Your task to perform on an android device: turn on sleep mode Image 0: 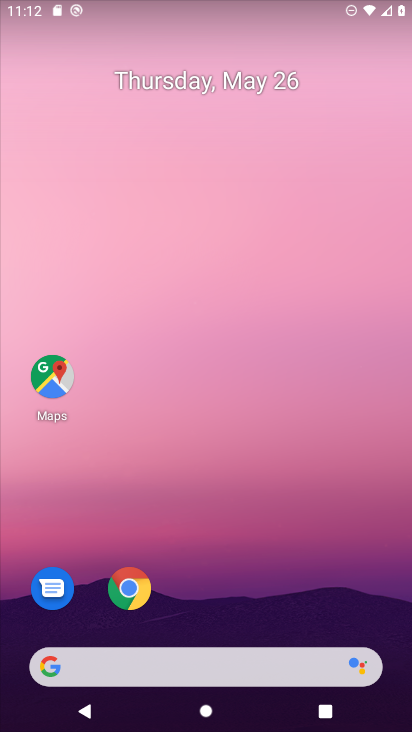
Step 0: drag from (388, 647) to (336, 79)
Your task to perform on an android device: turn on sleep mode Image 1: 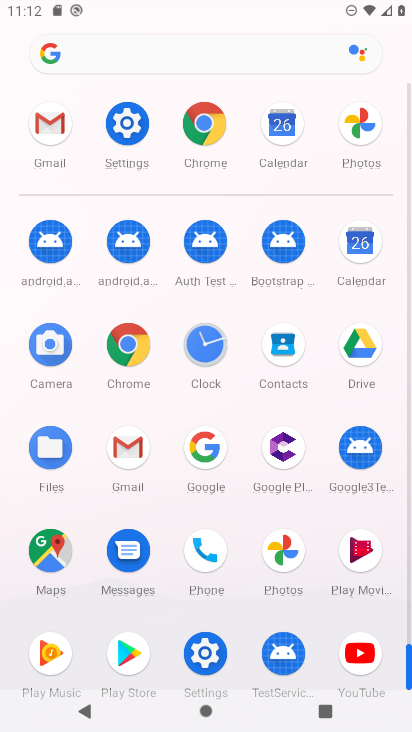
Step 1: click (203, 652)
Your task to perform on an android device: turn on sleep mode Image 2: 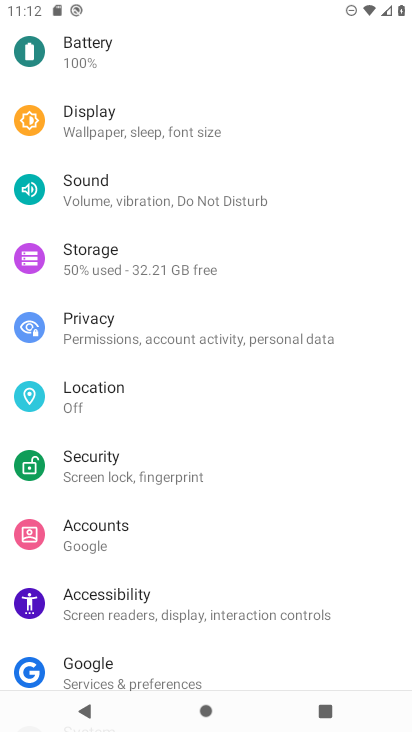
Step 2: click (110, 122)
Your task to perform on an android device: turn on sleep mode Image 3: 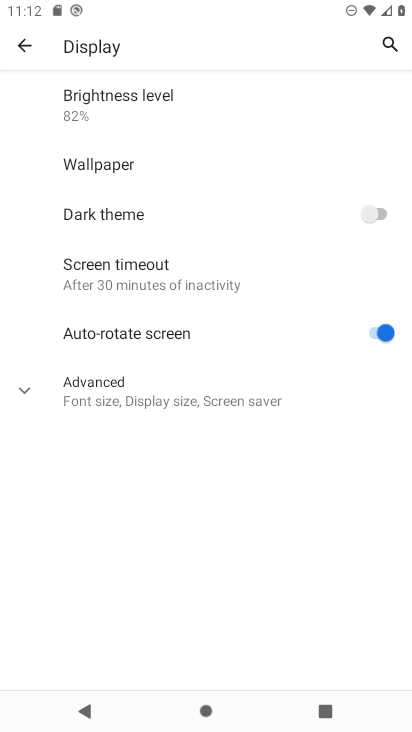
Step 3: click (26, 389)
Your task to perform on an android device: turn on sleep mode Image 4: 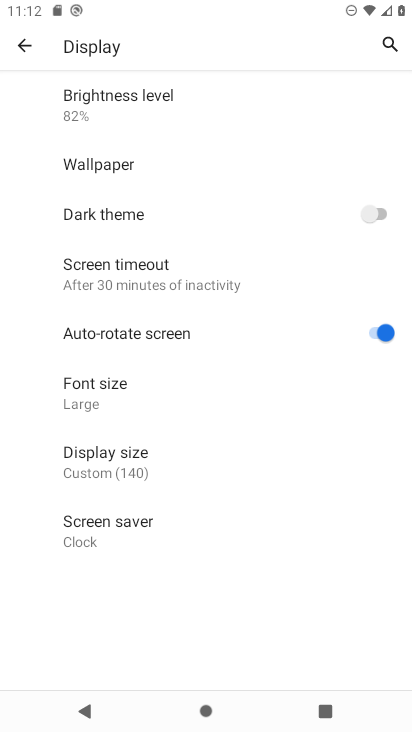
Step 4: task complete